Your task to perform on an android device: Add "asus rog" to the cart on amazon Image 0: 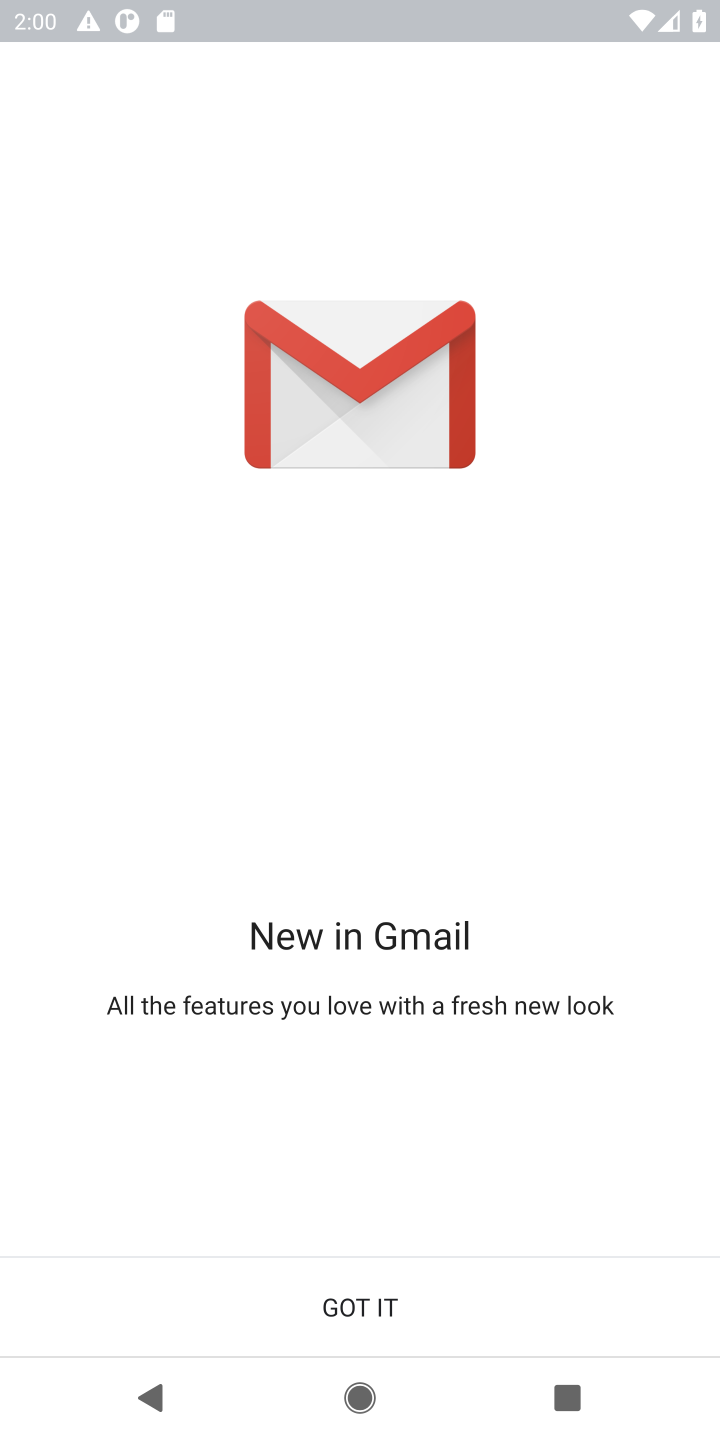
Step 0: press home button
Your task to perform on an android device: Add "asus rog" to the cart on amazon Image 1: 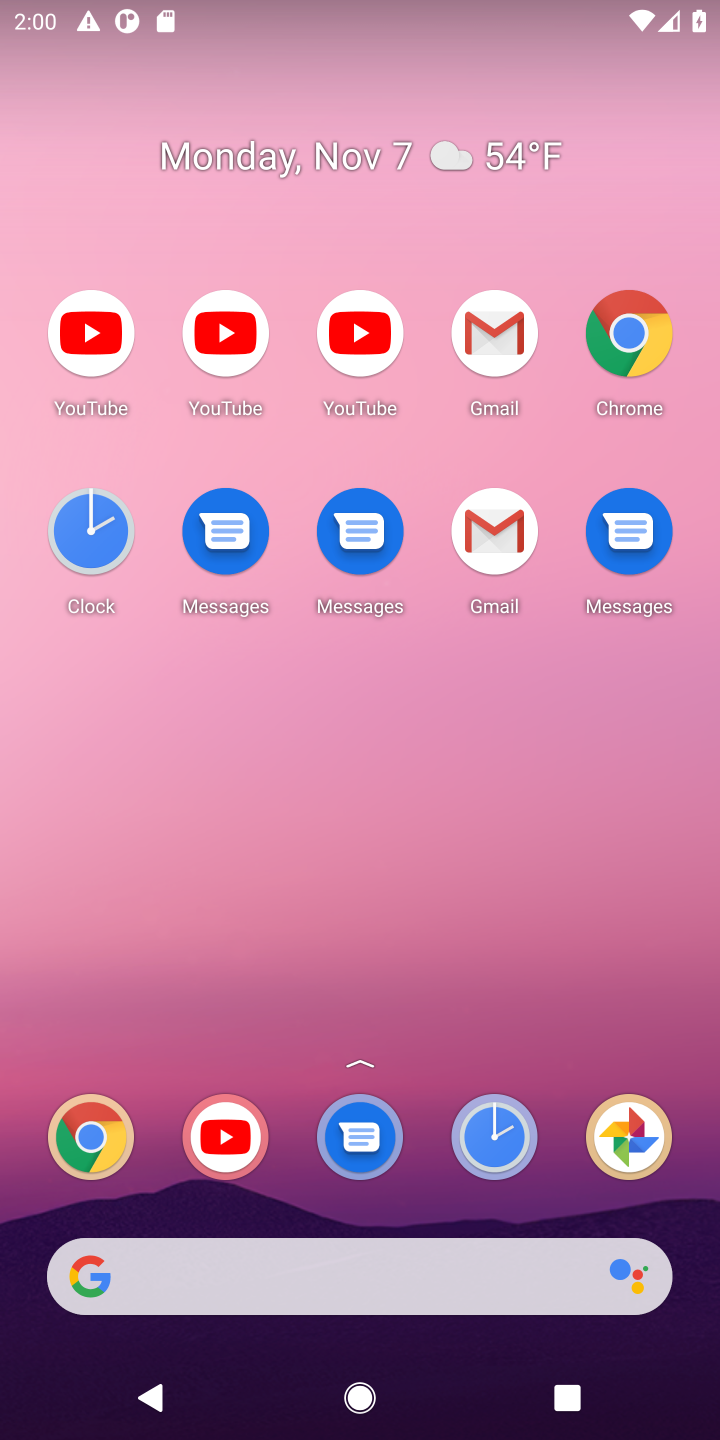
Step 1: drag from (429, 1226) to (355, 148)
Your task to perform on an android device: Add "asus rog" to the cart on amazon Image 2: 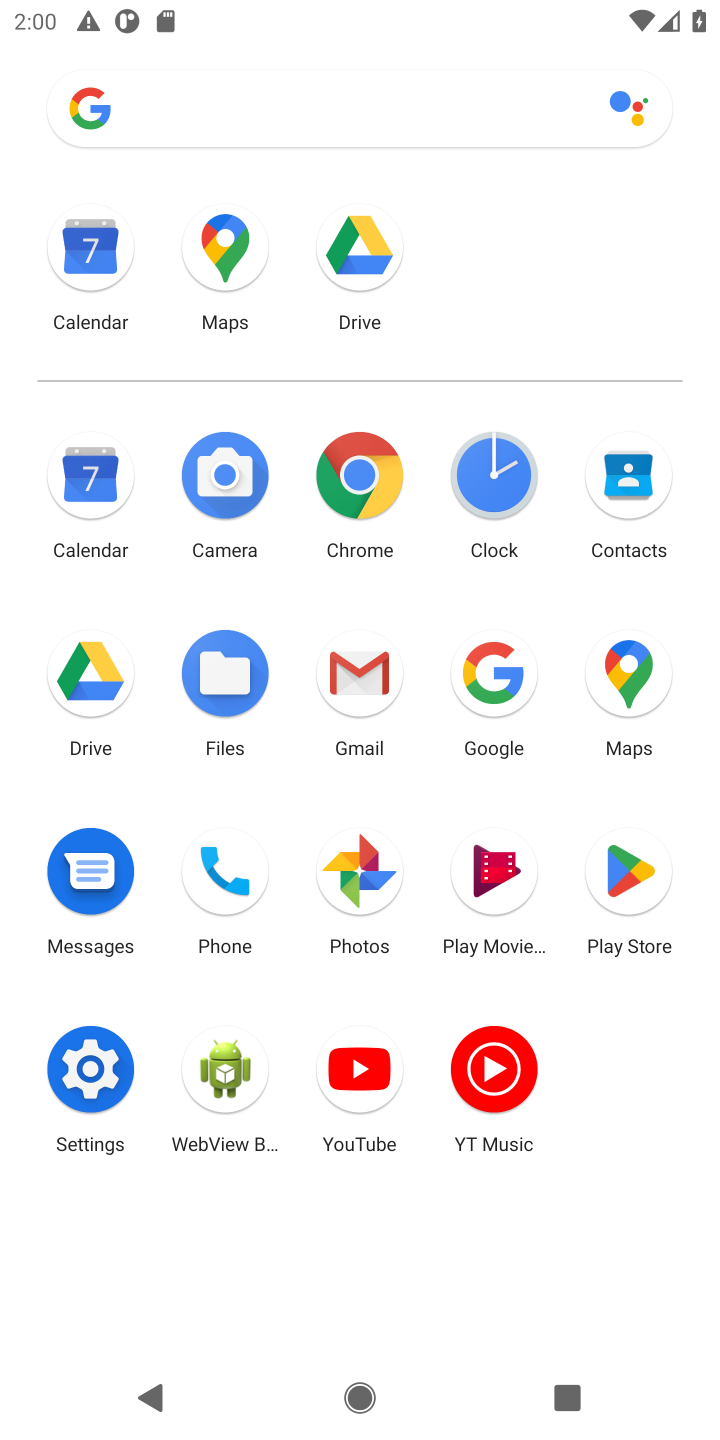
Step 2: click (360, 476)
Your task to perform on an android device: Add "asus rog" to the cart on amazon Image 3: 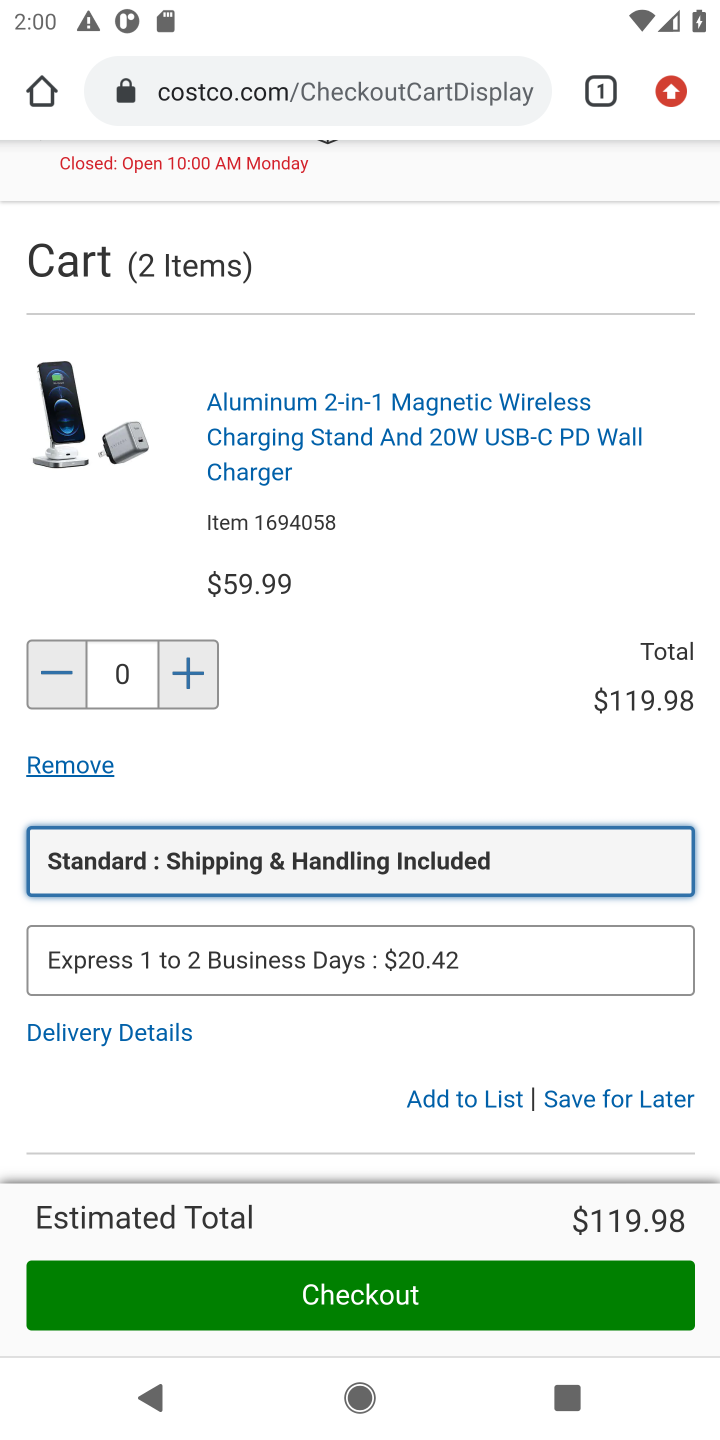
Step 3: click (475, 543)
Your task to perform on an android device: Add "asus rog" to the cart on amazon Image 4: 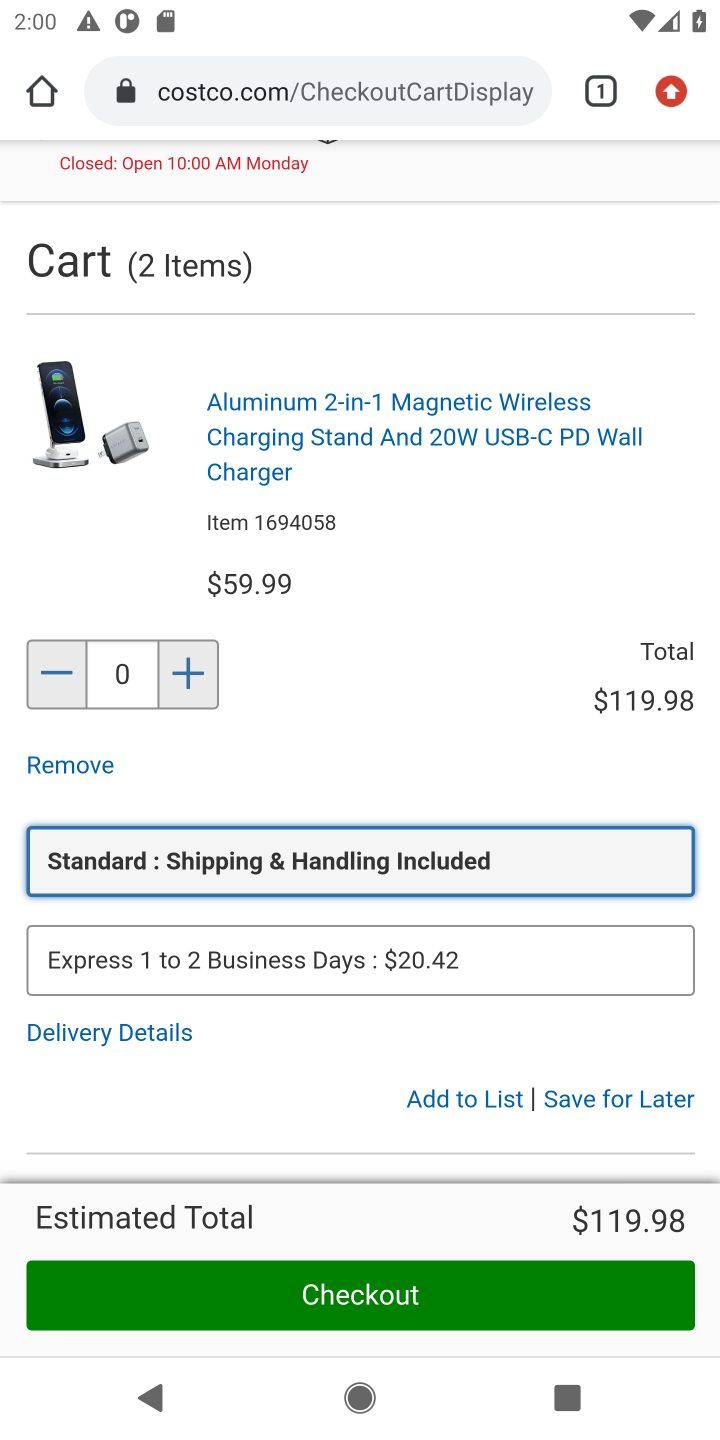
Step 4: click (443, 95)
Your task to perform on an android device: Add "asus rog" to the cart on amazon Image 5: 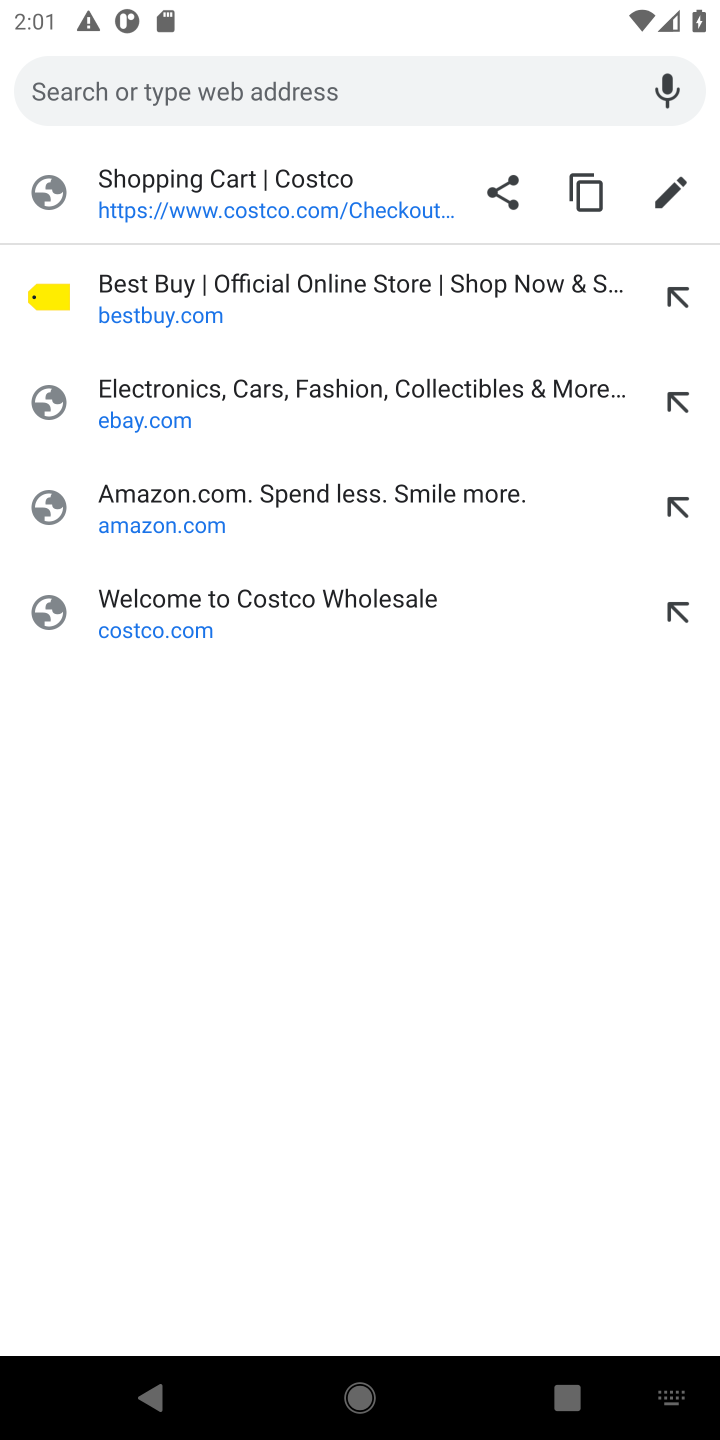
Step 5: type "z"
Your task to perform on an android device: Add "asus rog" to the cart on amazon Image 6: 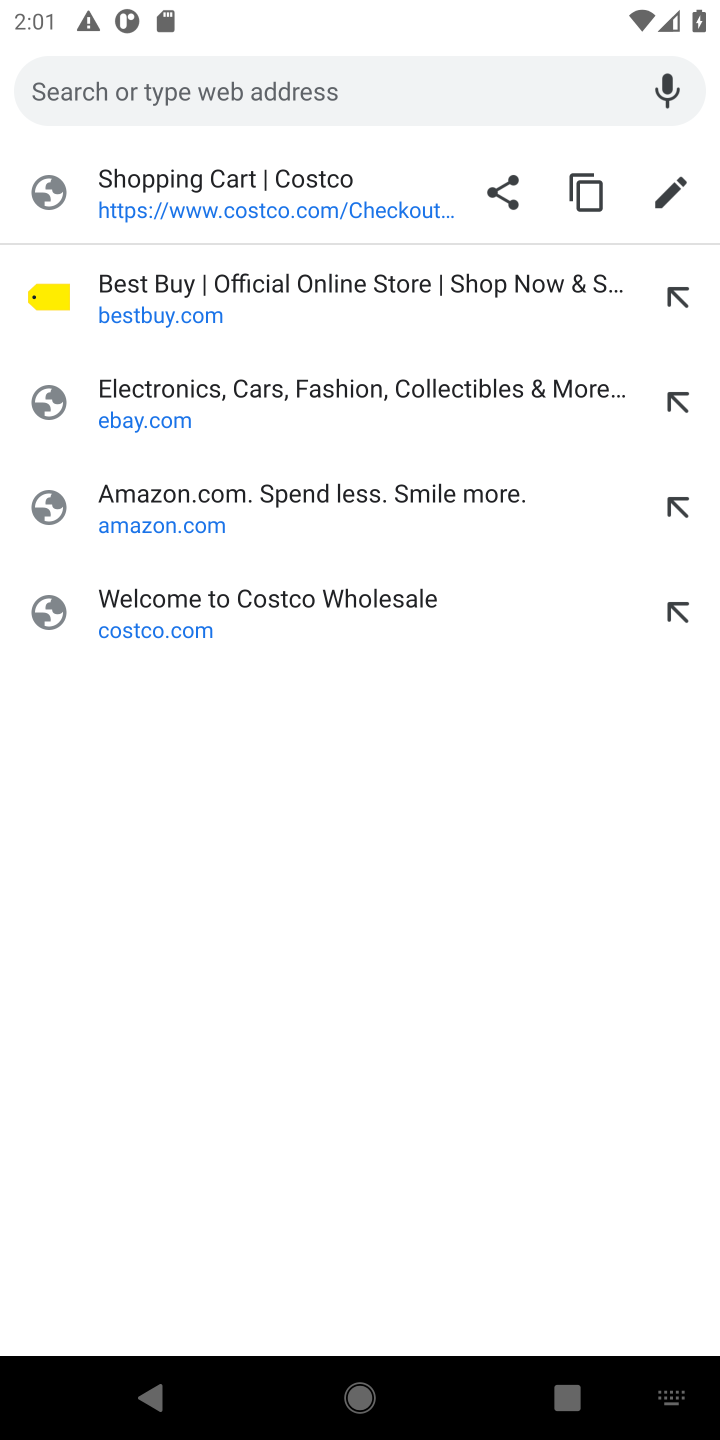
Step 6: click (160, 517)
Your task to perform on an android device: Add "asus rog" to the cart on amazon Image 7: 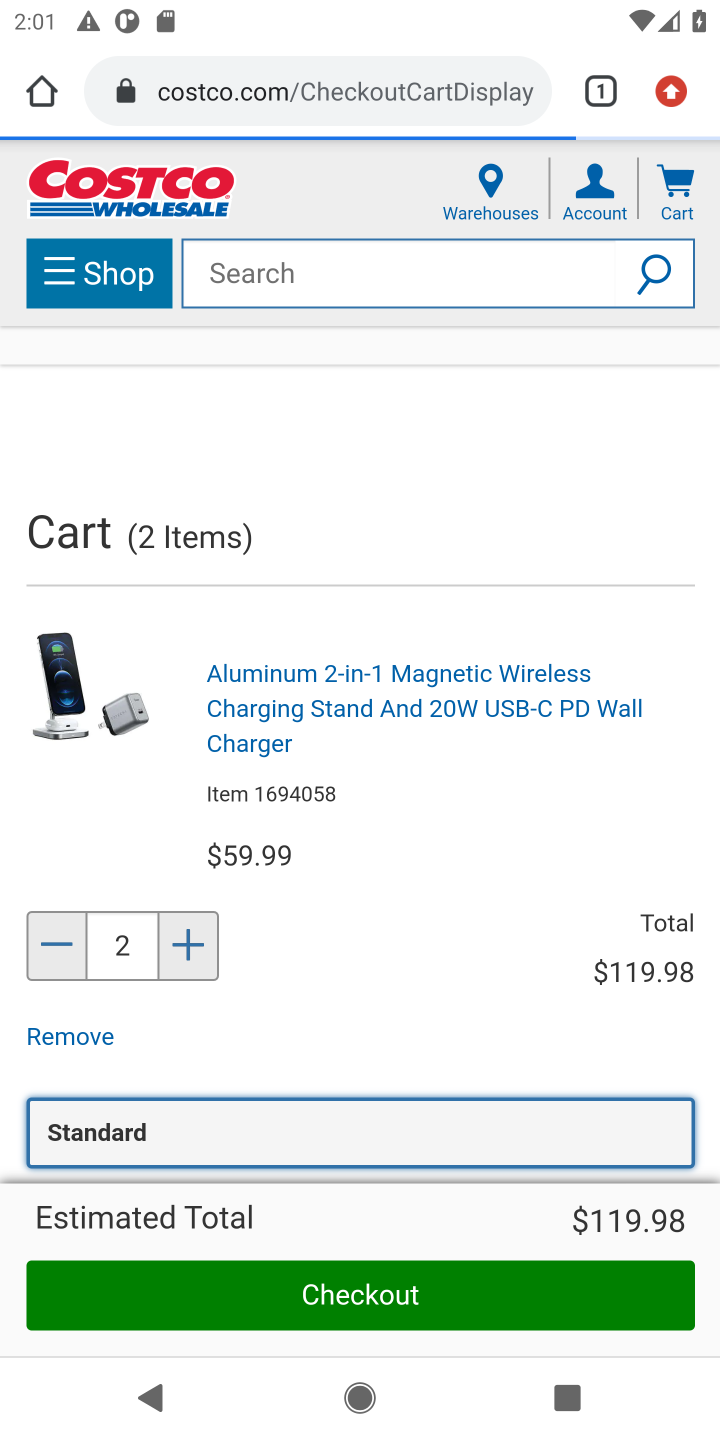
Step 7: click (397, 73)
Your task to perform on an android device: Add "asus rog" to the cart on amazon Image 8: 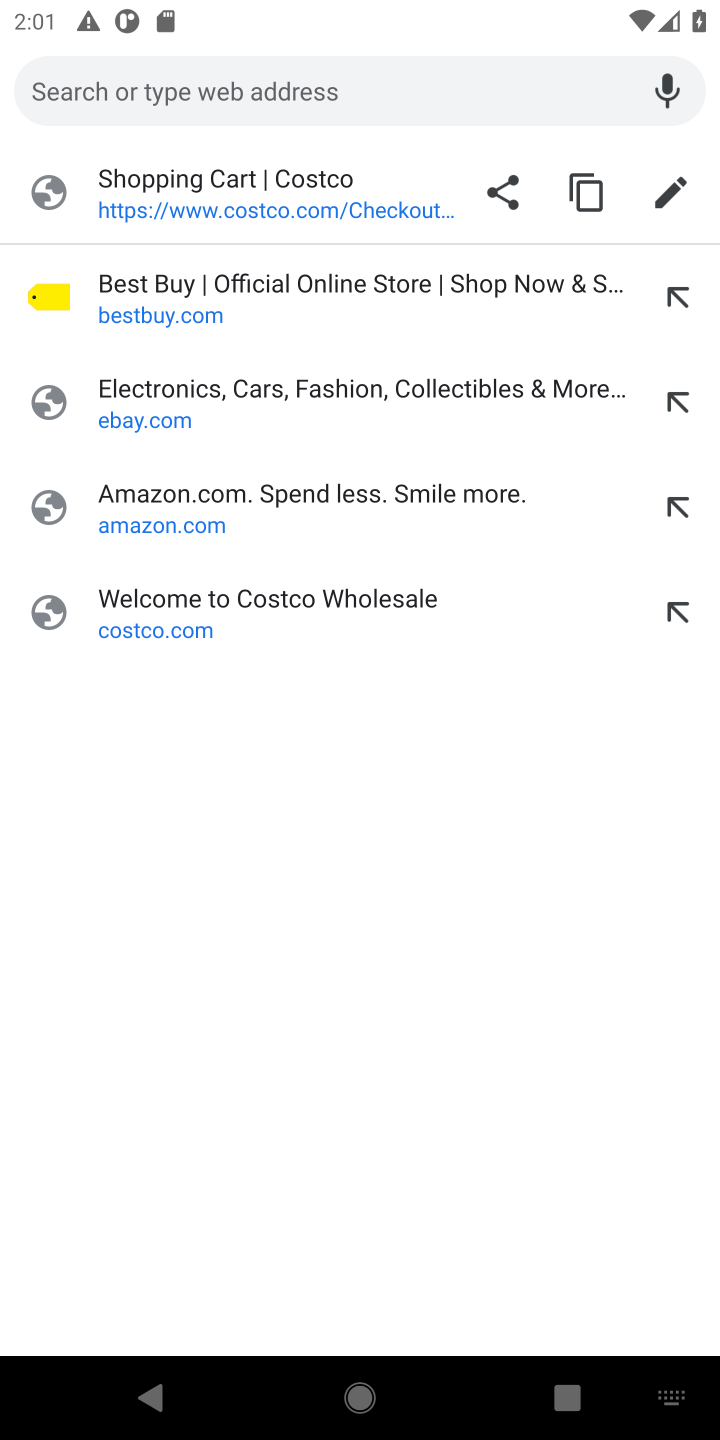
Step 8: click (195, 522)
Your task to perform on an android device: Add "asus rog" to the cart on amazon Image 9: 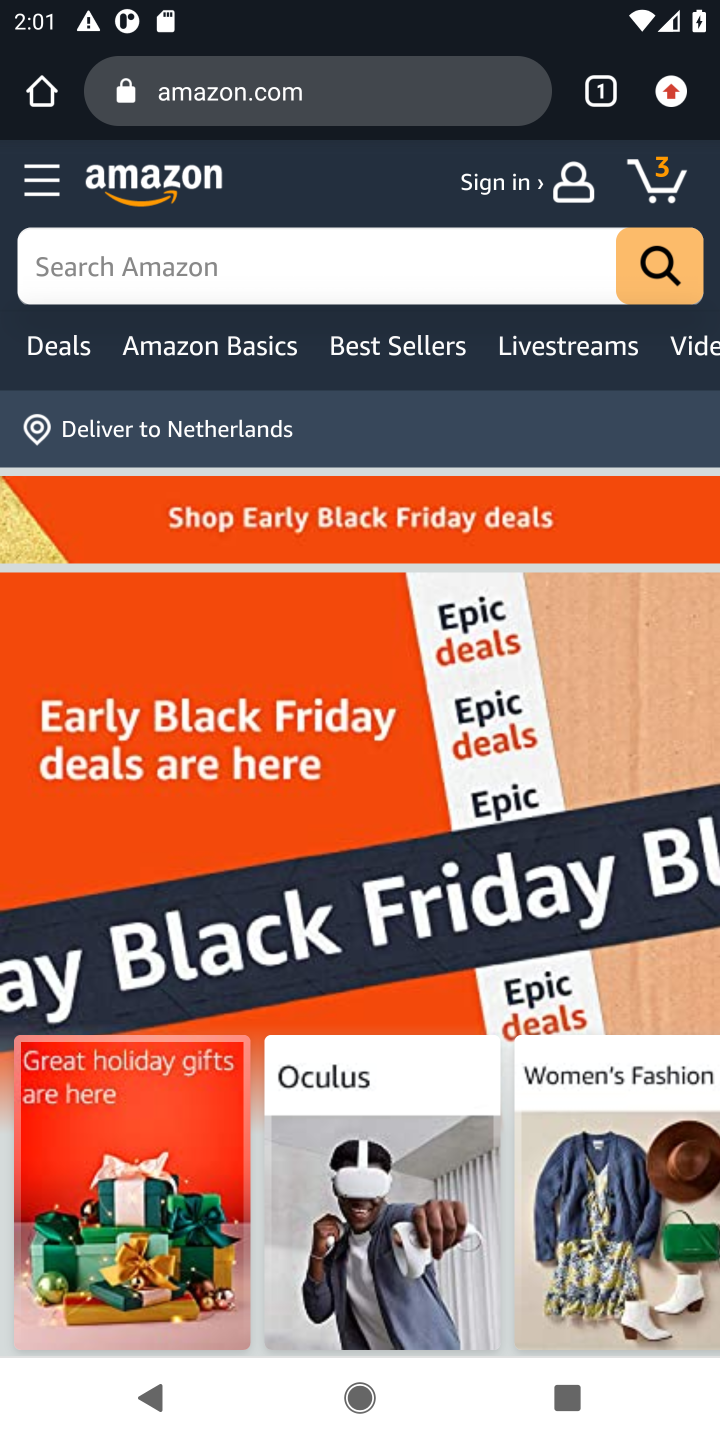
Step 9: click (426, 264)
Your task to perform on an android device: Add "asus rog" to the cart on amazon Image 10: 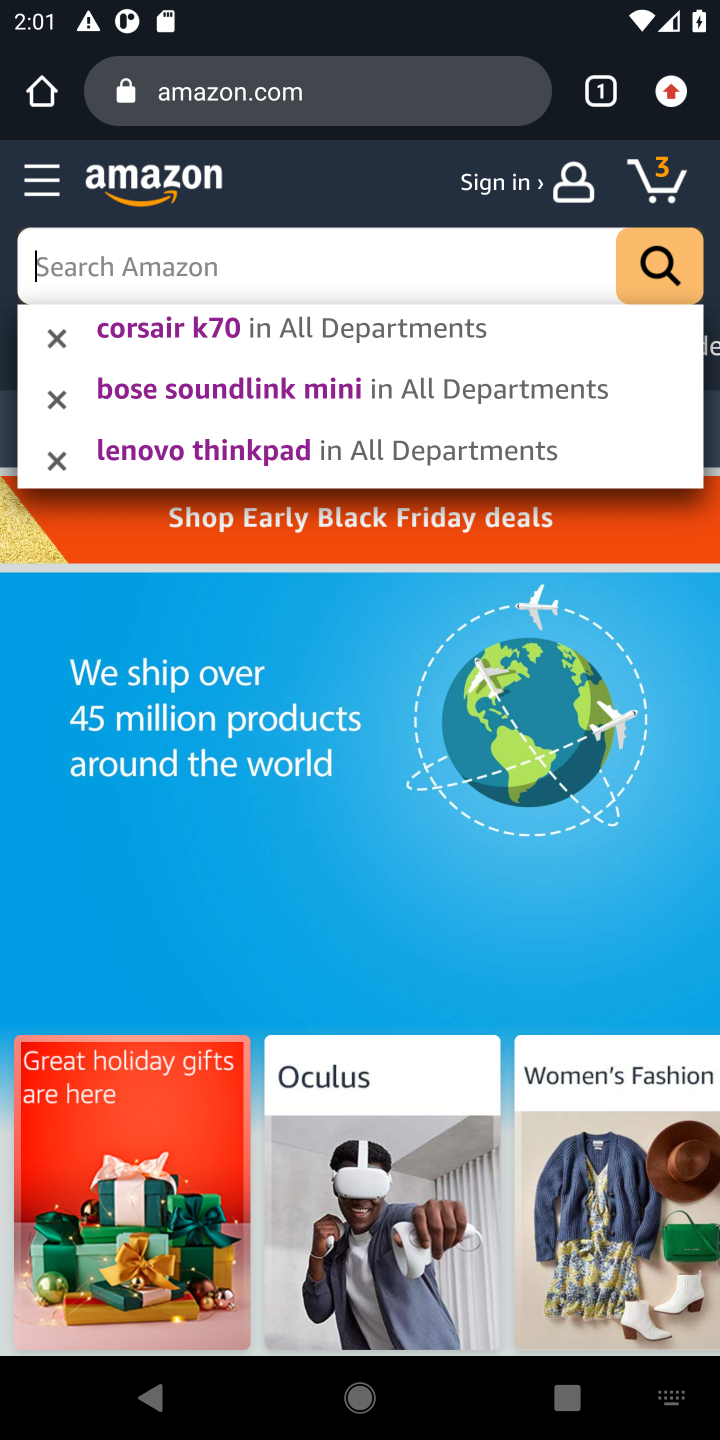
Step 10: type "asus rog"
Your task to perform on an android device: Add "asus rog" to the cart on amazon Image 11: 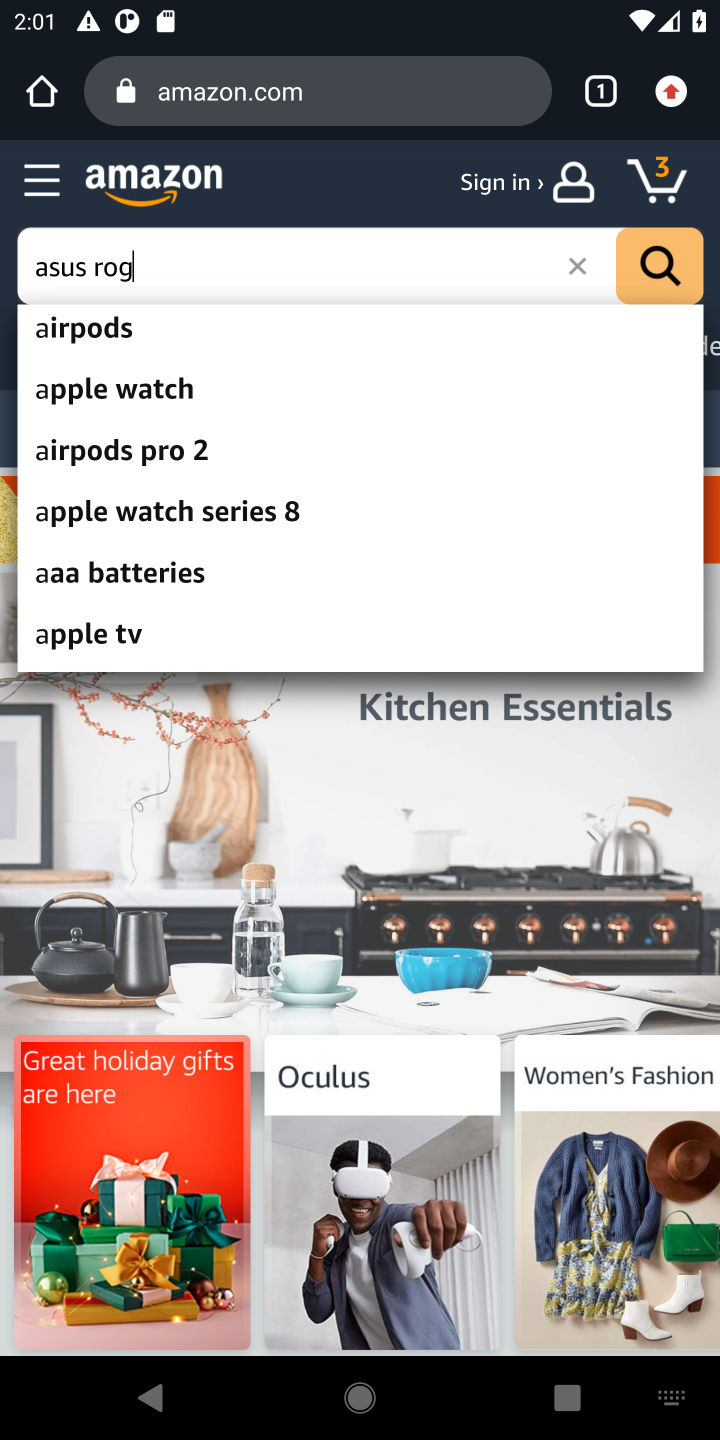
Step 11: press enter
Your task to perform on an android device: Add "asus rog" to the cart on amazon Image 12: 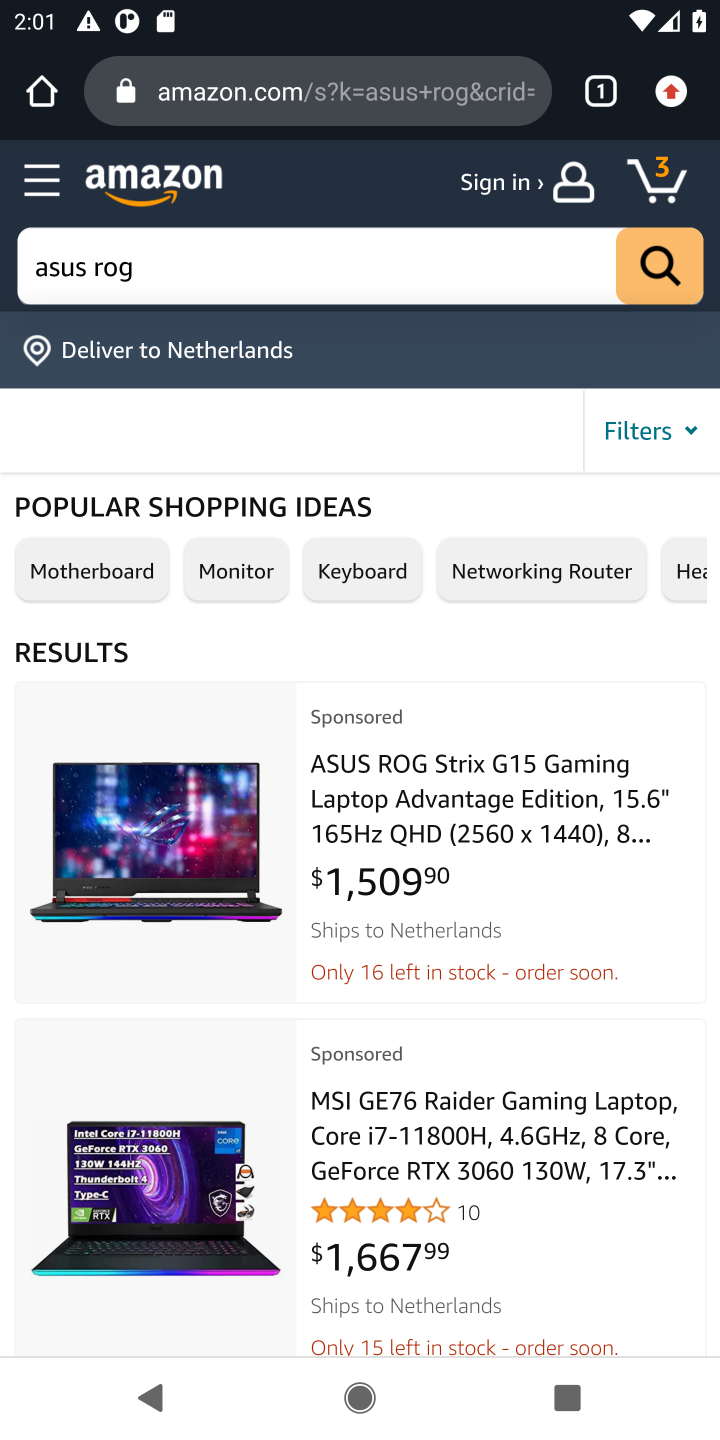
Step 12: drag from (493, 1025) to (549, 418)
Your task to perform on an android device: Add "asus rog" to the cart on amazon Image 13: 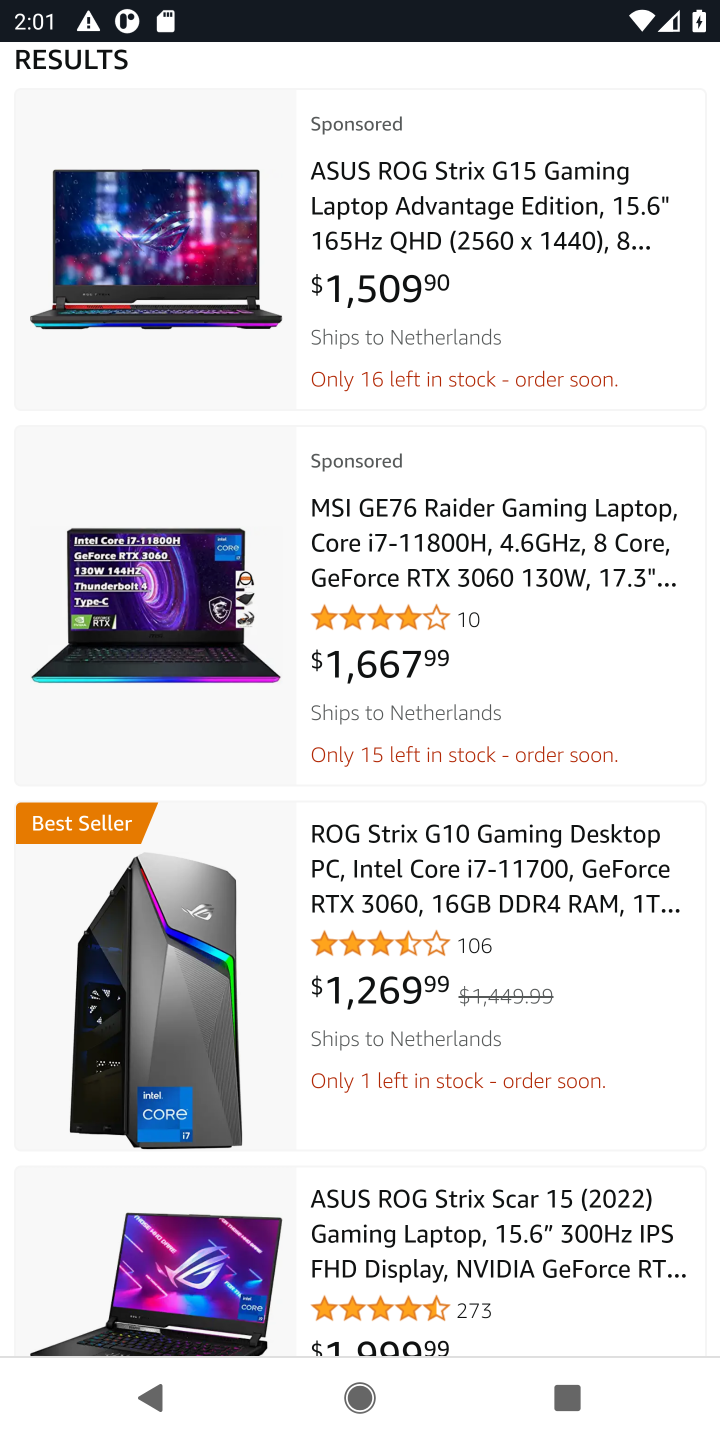
Step 13: drag from (532, 1048) to (531, 688)
Your task to perform on an android device: Add "asus rog" to the cart on amazon Image 14: 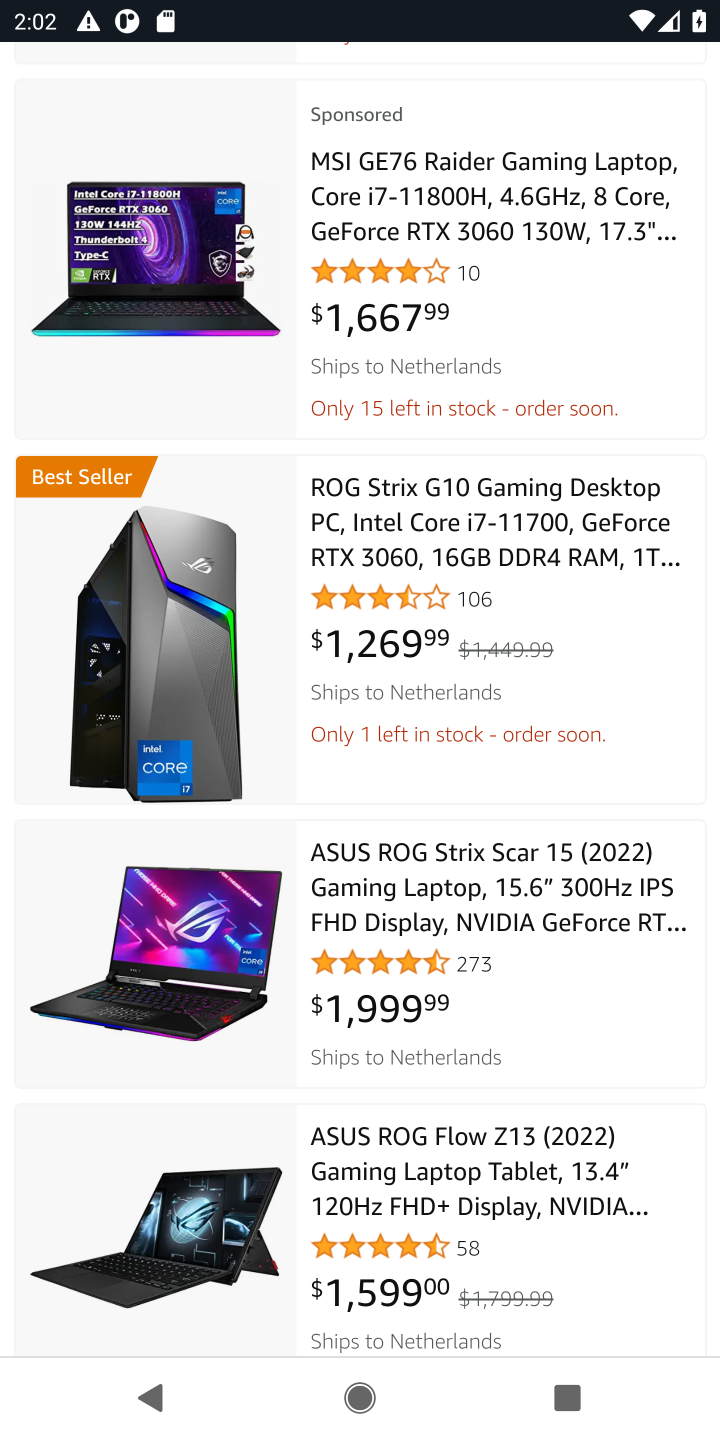
Step 14: click (411, 908)
Your task to perform on an android device: Add "asus rog" to the cart on amazon Image 15: 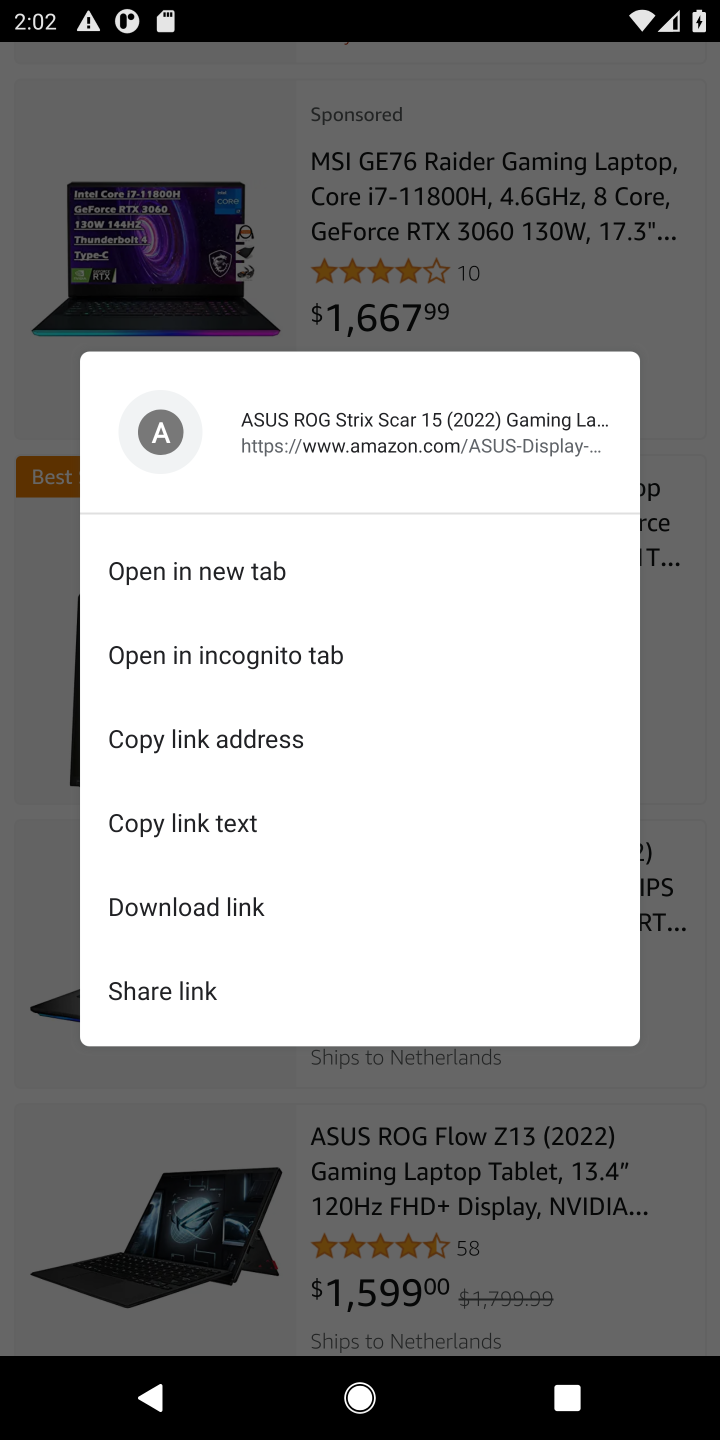
Step 15: click (654, 860)
Your task to perform on an android device: Add "asus rog" to the cart on amazon Image 16: 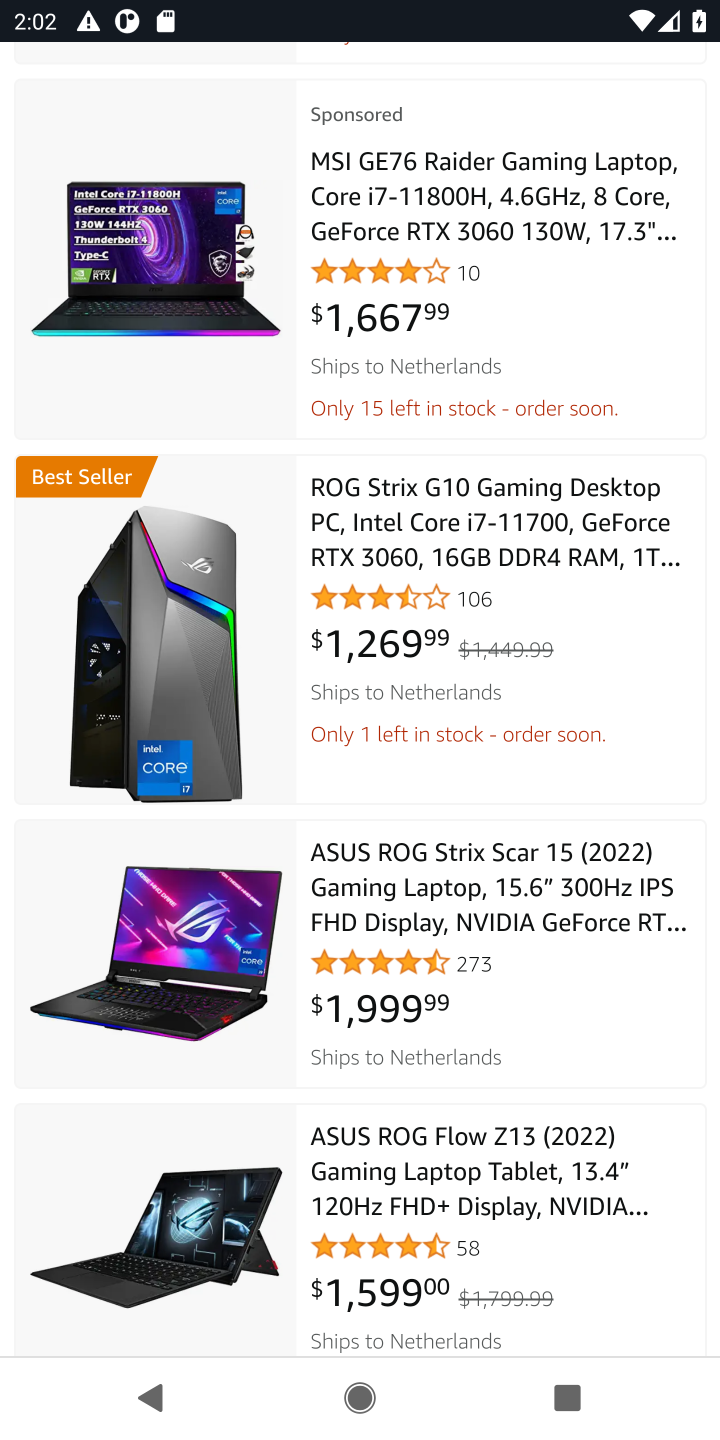
Step 16: click (470, 895)
Your task to perform on an android device: Add "asus rog" to the cart on amazon Image 17: 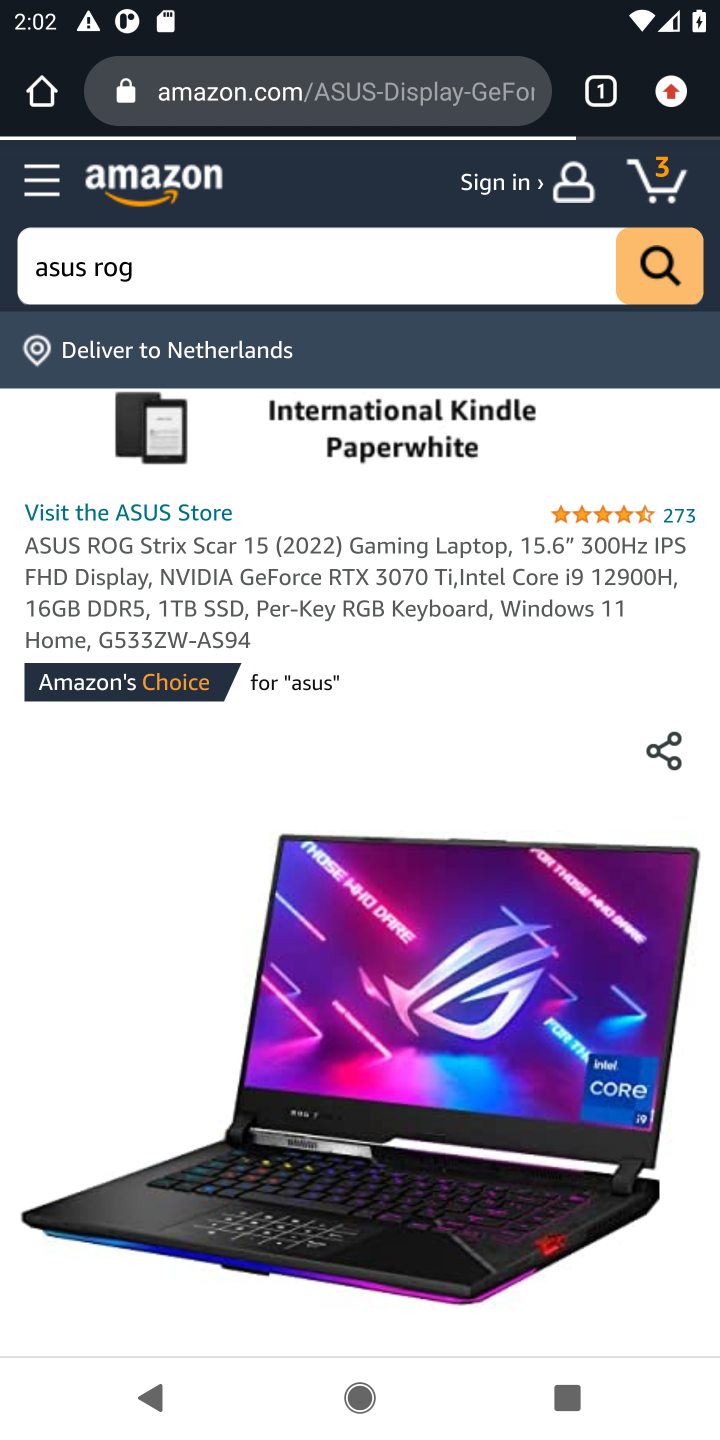
Step 17: drag from (329, 1127) to (379, 379)
Your task to perform on an android device: Add "asus rog" to the cart on amazon Image 18: 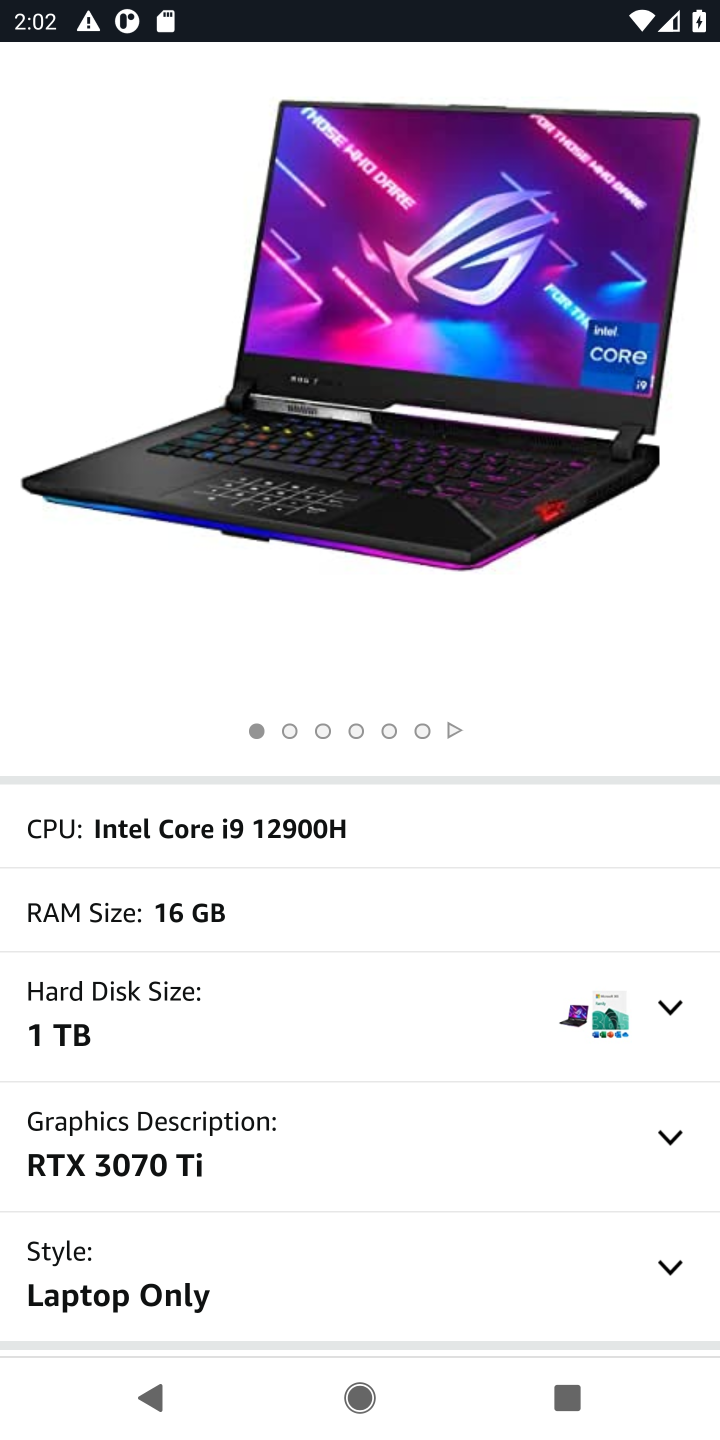
Step 18: drag from (448, 1240) to (445, 379)
Your task to perform on an android device: Add "asus rog" to the cart on amazon Image 19: 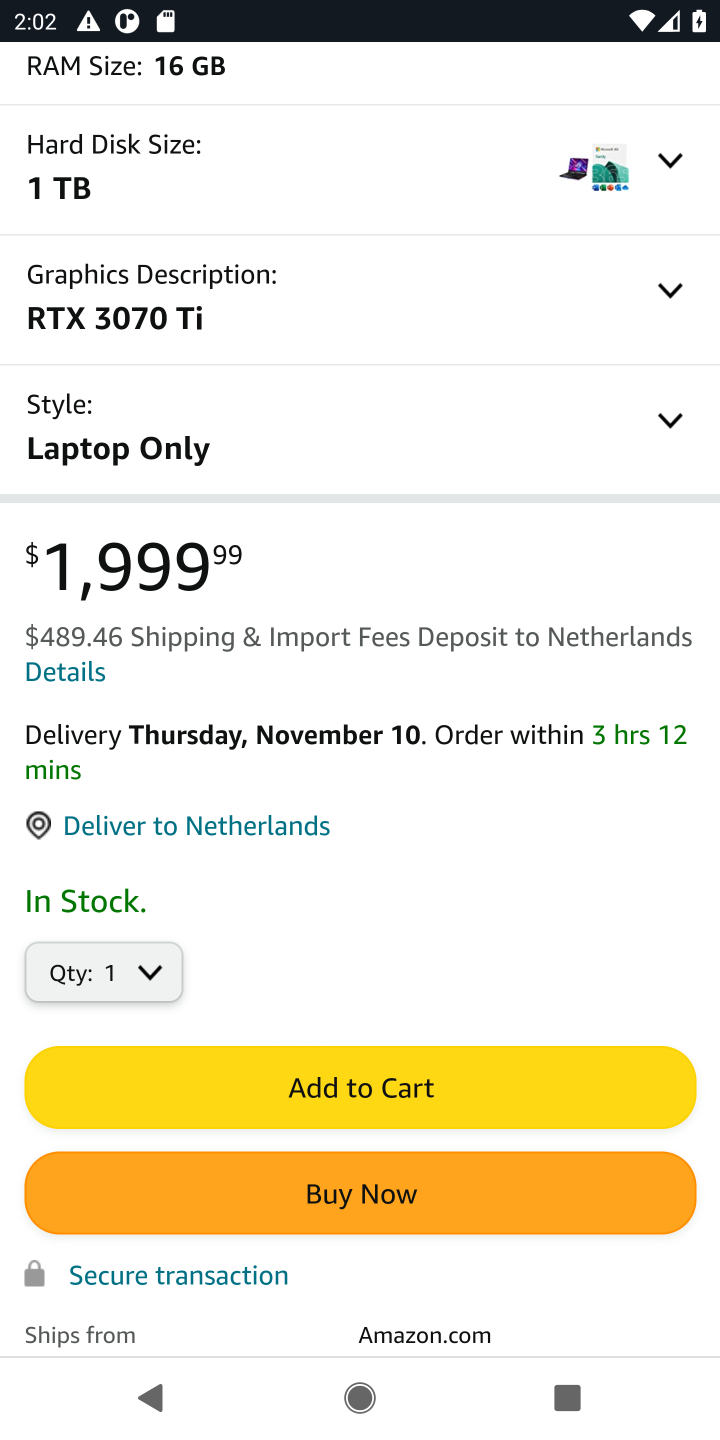
Step 19: click (421, 1091)
Your task to perform on an android device: Add "asus rog" to the cart on amazon Image 20: 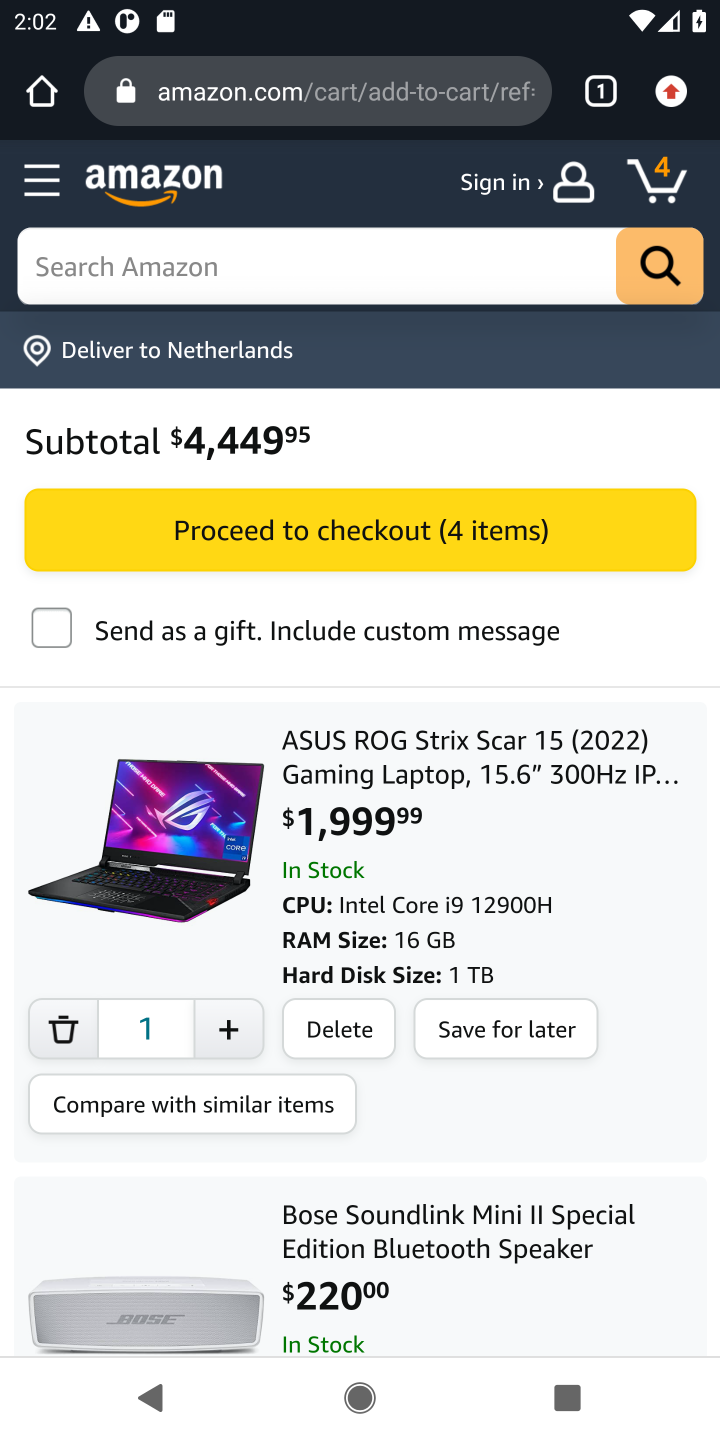
Step 20: task complete